Your task to perform on an android device: Do I have any events tomorrow? Image 0: 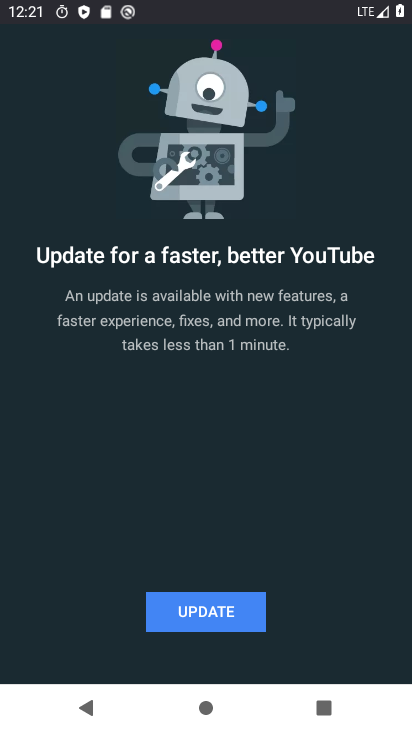
Step 0: press home button
Your task to perform on an android device: Do I have any events tomorrow? Image 1: 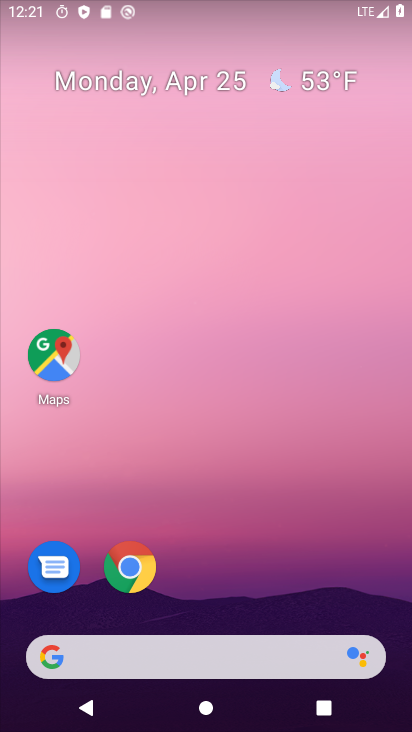
Step 1: drag from (307, 554) to (256, 33)
Your task to perform on an android device: Do I have any events tomorrow? Image 2: 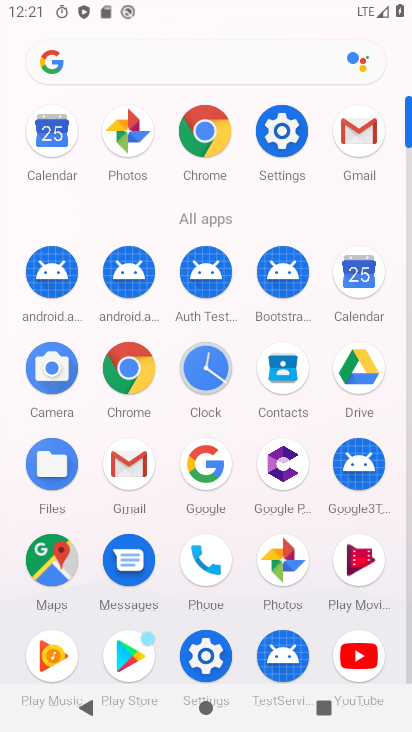
Step 2: click (64, 131)
Your task to perform on an android device: Do I have any events tomorrow? Image 3: 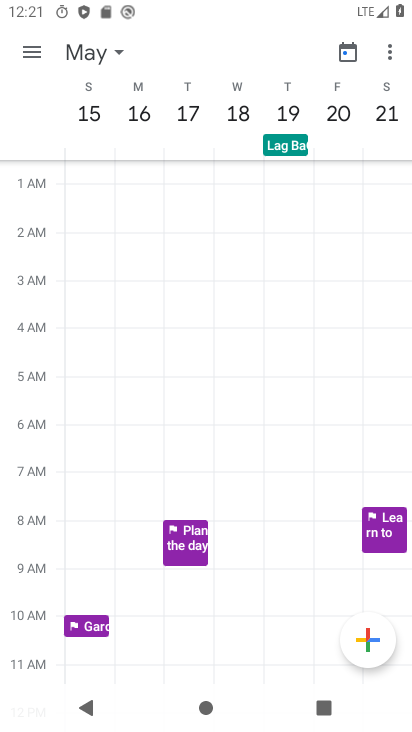
Step 3: drag from (297, 542) to (310, 201)
Your task to perform on an android device: Do I have any events tomorrow? Image 4: 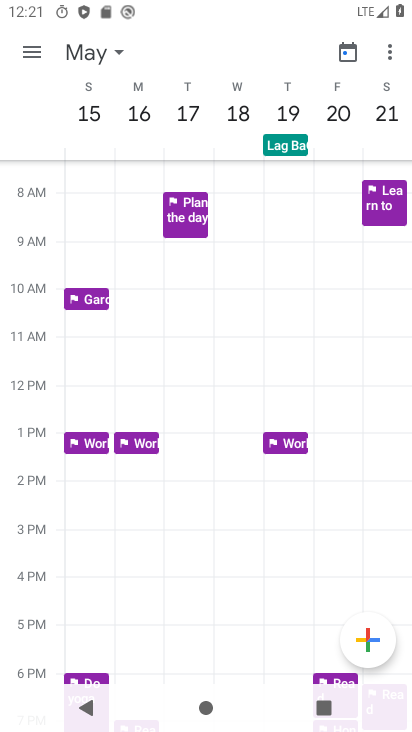
Step 4: drag from (335, 526) to (342, 177)
Your task to perform on an android device: Do I have any events tomorrow? Image 5: 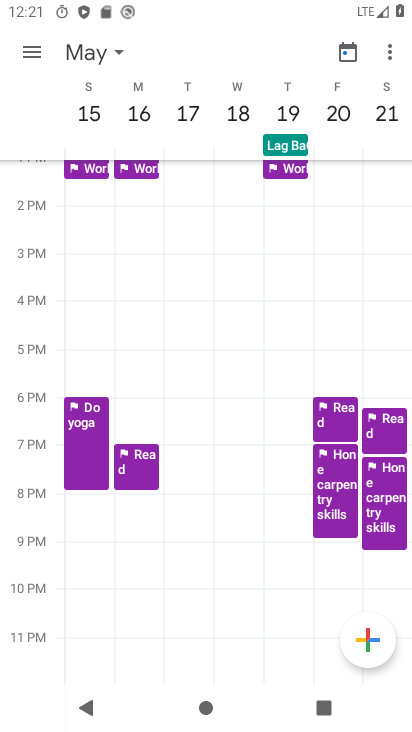
Step 5: click (327, 432)
Your task to perform on an android device: Do I have any events tomorrow? Image 6: 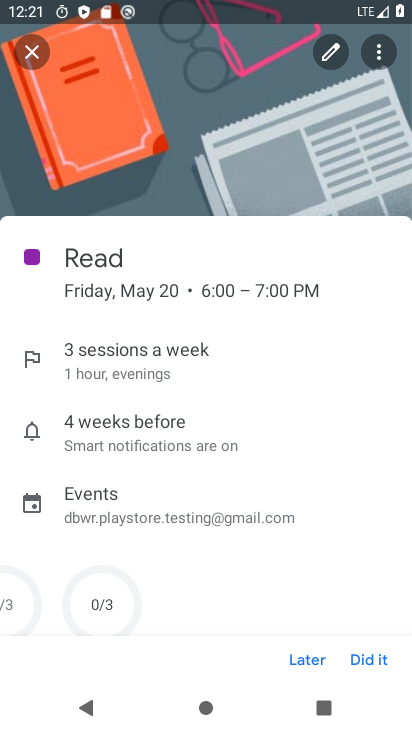
Step 6: task complete